Your task to perform on an android device: Open Google Chrome Image 0: 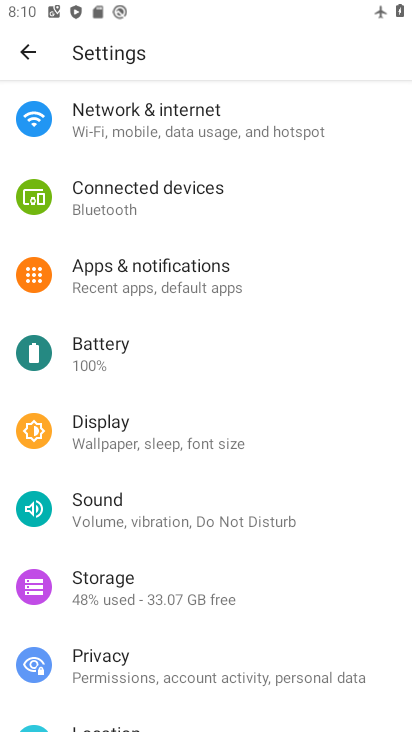
Step 0: press home button
Your task to perform on an android device: Open Google Chrome Image 1: 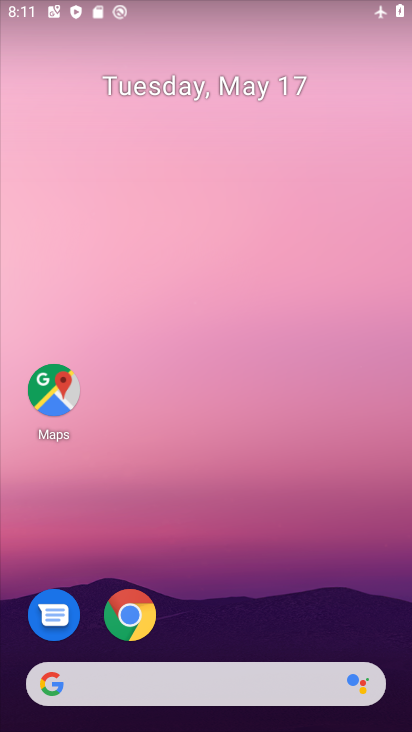
Step 1: drag from (208, 613) to (253, 281)
Your task to perform on an android device: Open Google Chrome Image 2: 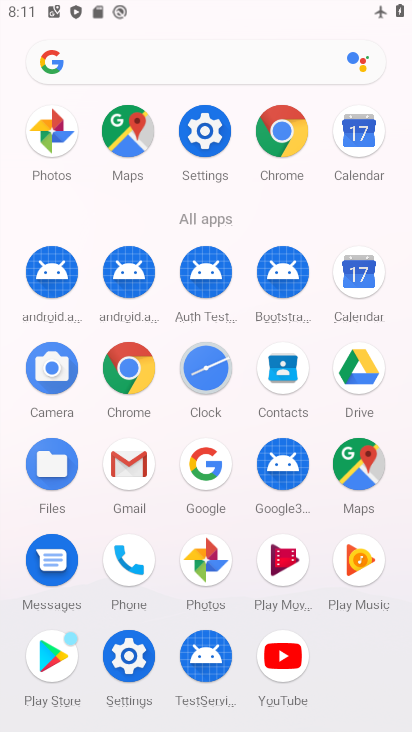
Step 2: click (199, 462)
Your task to perform on an android device: Open Google Chrome Image 3: 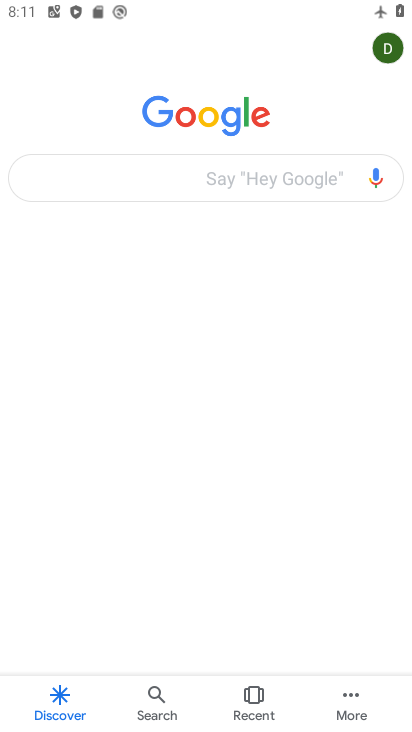
Step 3: task complete